Your task to perform on an android device: add a contact in the contacts app Image 0: 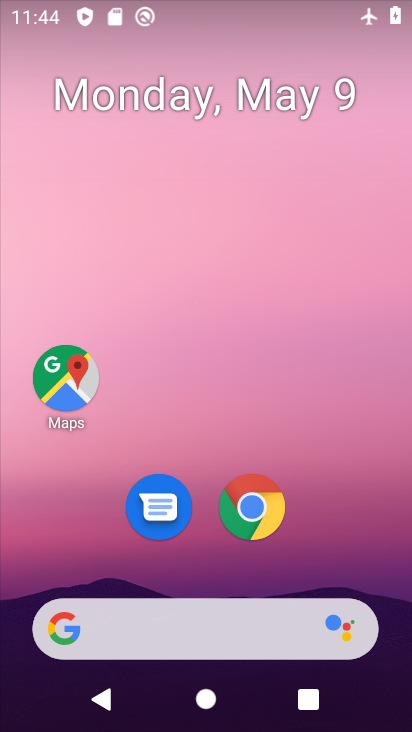
Step 0: drag from (383, 515) to (332, 131)
Your task to perform on an android device: add a contact in the contacts app Image 1: 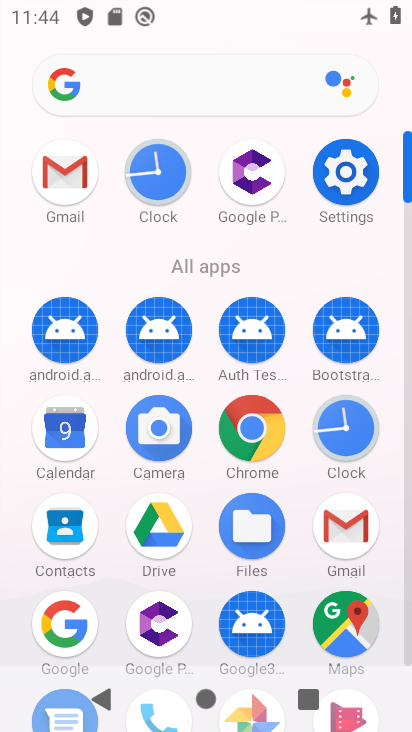
Step 1: click (71, 511)
Your task to perform on an android device: add a contact in the contacts app Image 2: 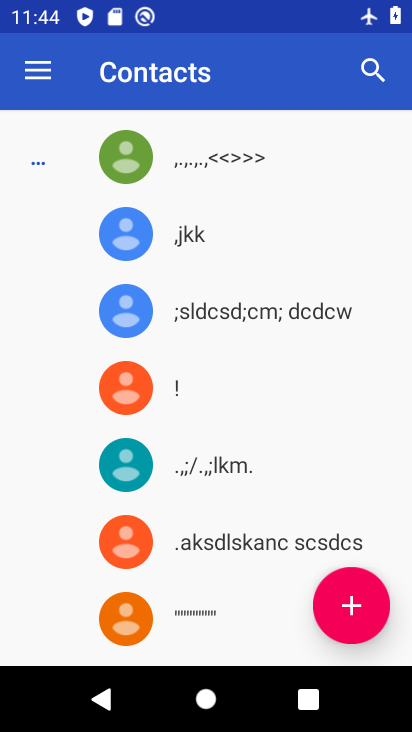
Step 2: click (347, 609)
Your task to perform on an android device: add a contact in the contacts app Image 3: 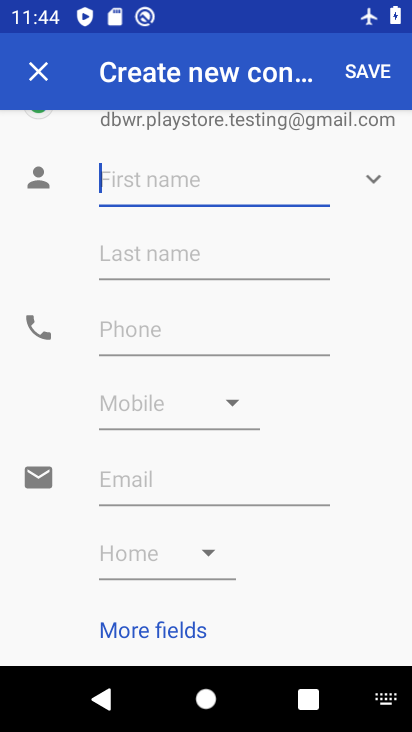
Step 3: type "vdfdv"
Your task to perform on an android device: add a contact in the contacts app Image 4: 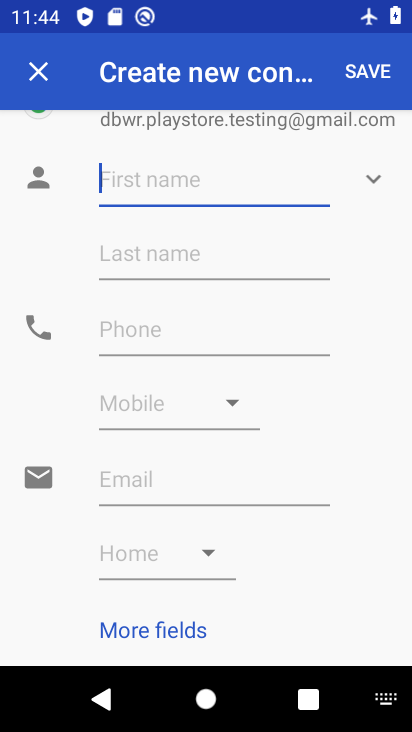
Step 4: click (193, 321)
Your task to perform on an android device: add a contact in the contacts app Image 5: 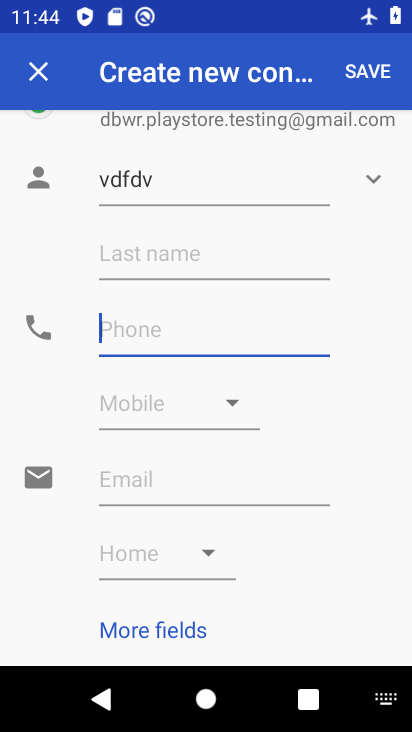
Step 5: type "6667776666"
Your task to perform on an android device: add a contact in the contacts app Image 6: 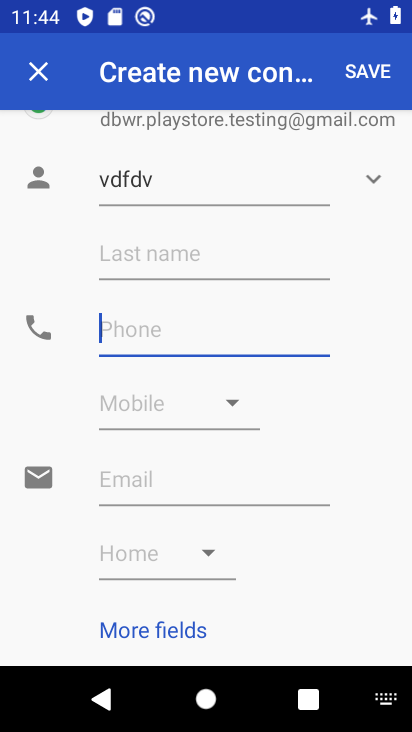
Step 6: click (387, 70)
Your task to perform on an android device: add a contact in the contacts app Image 7: 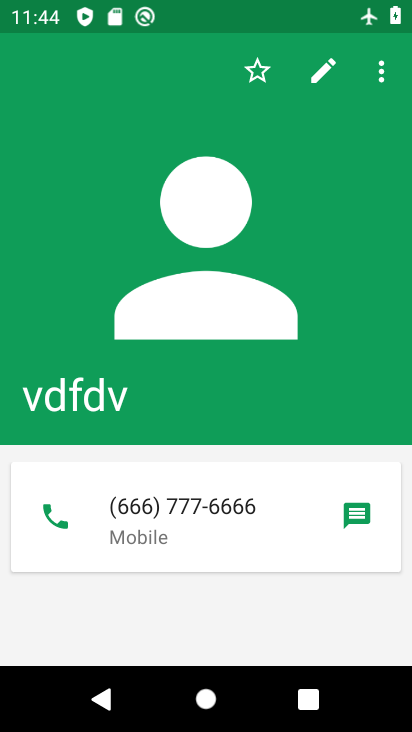
Step 7: task complete